Your task to perform on an android device: Search for hotels in Denver Image 0: 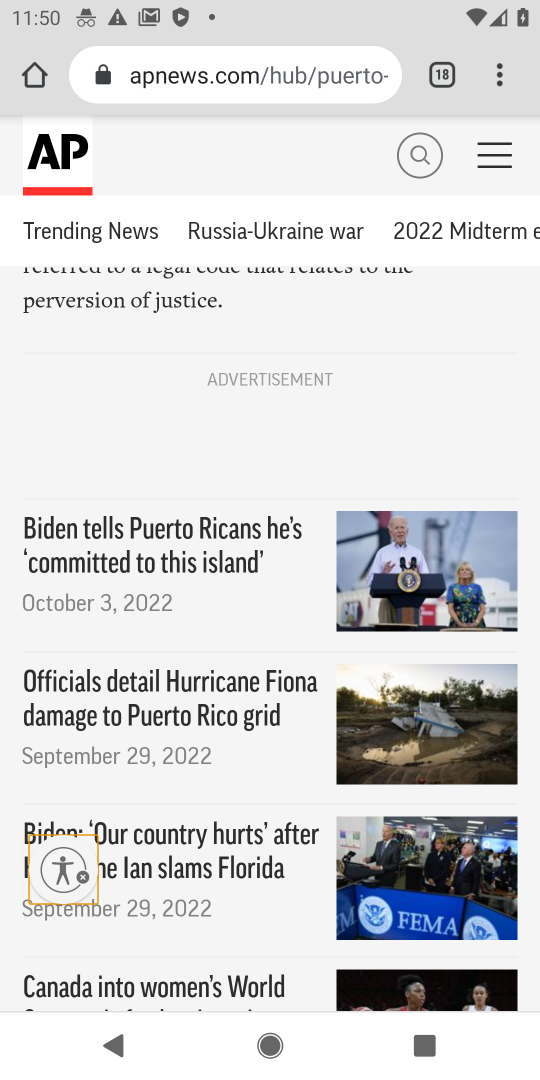
Step 0: press home button
Your task to perform on an android device: Search for hotels in Denver Image 1: 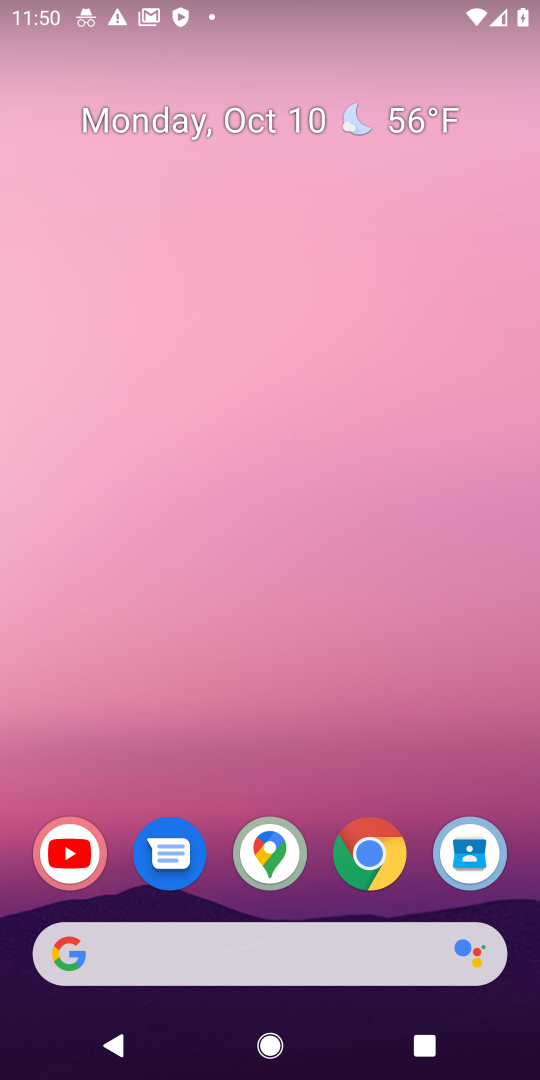
Step 1: click (266, 956)
Your task to perform on an android device: Search for hotels in Denver Image 2: 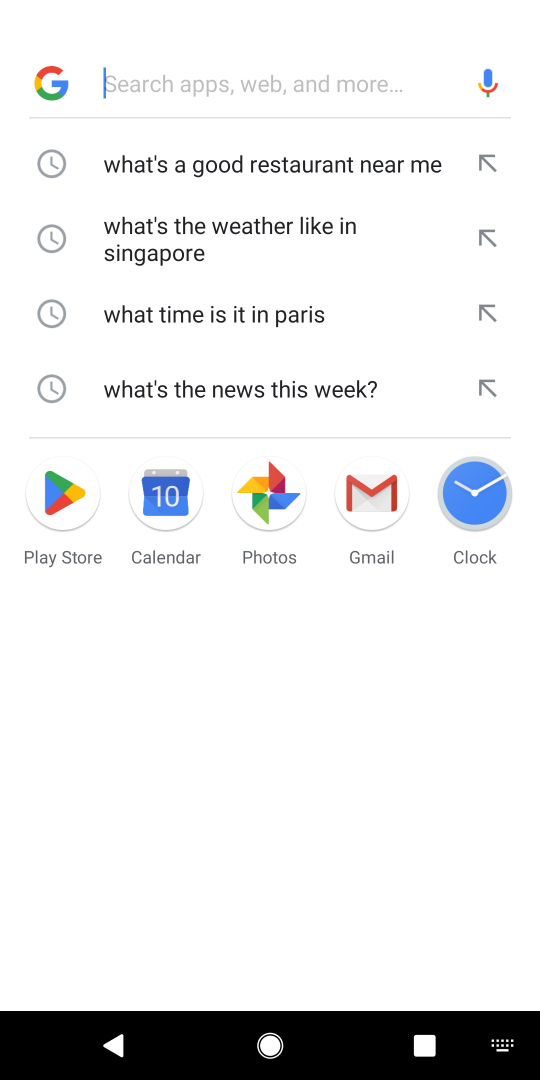
Step 2: type "hotels in Denver"
Your task to perform on an android device: Search for hotels in Denver Image 3: 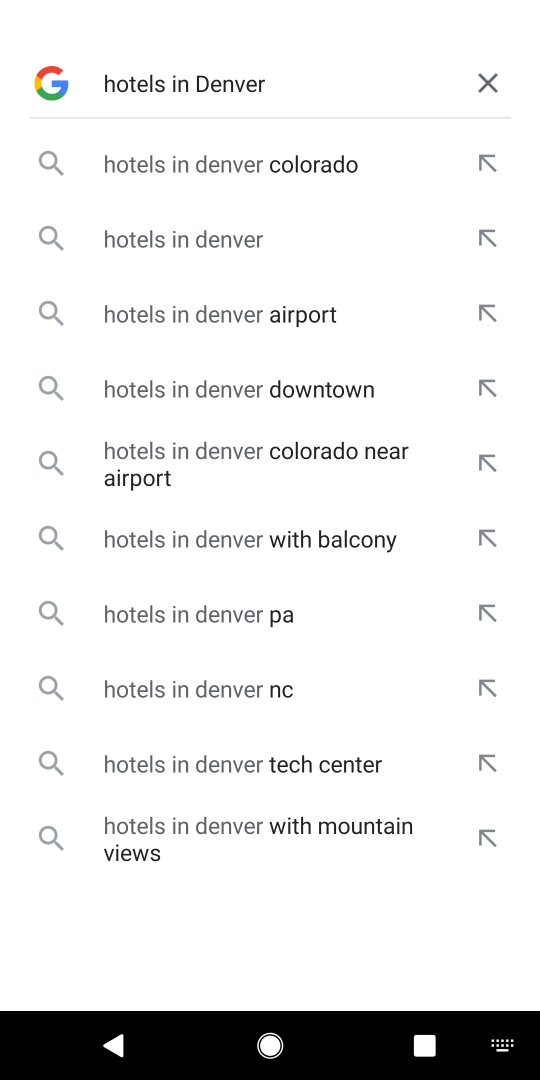
Step 3: press enter
Your task to perform on an android device: Search for hotels in Denver Image 4: 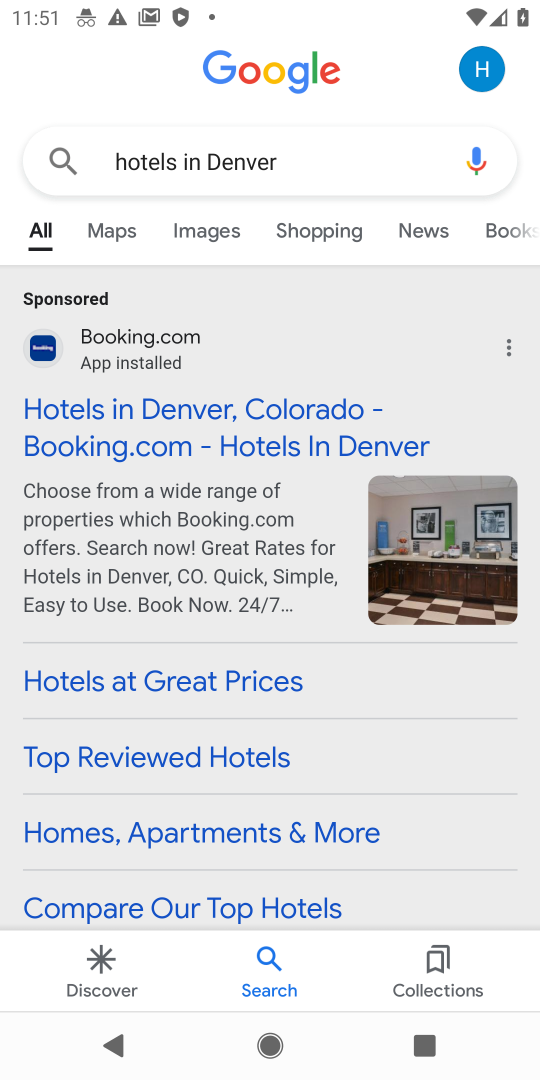
Step 4: click (225, 434)
Your task to perform on an android device: Search for hotels in Denver Image 5: 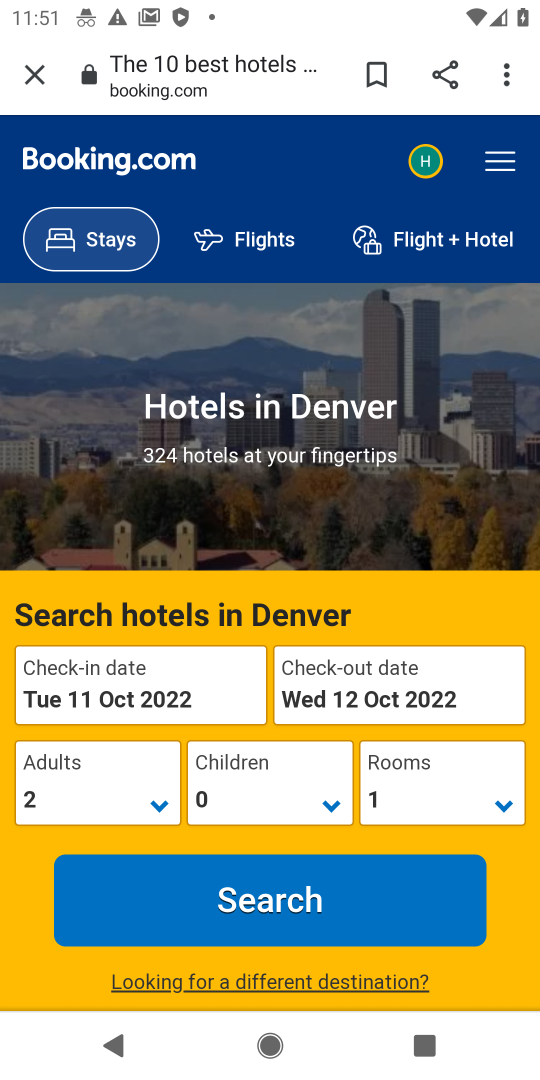
Step 5: click (330, 899)
Your task to perform on an android device: Search for hotels in Denver Image 6: 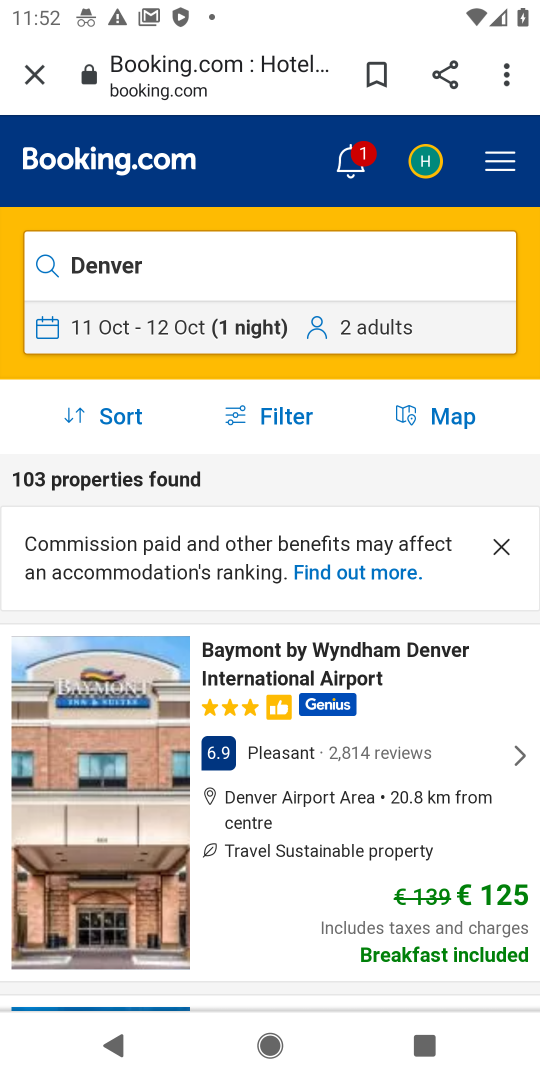
Step 6: task complete